Your task to perform on an android device: turn off translation in the chrome app Image 0: 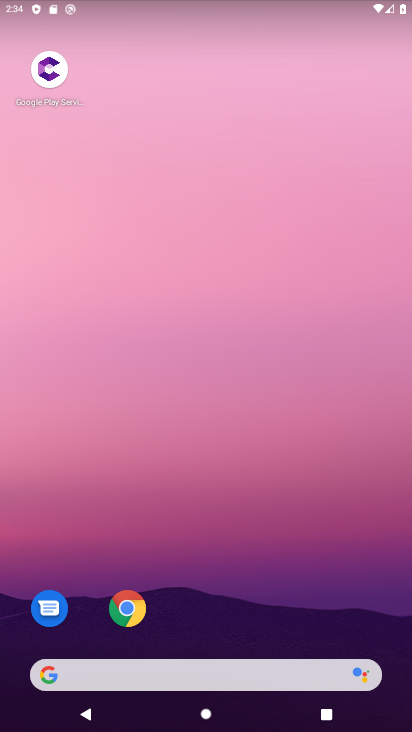
Step 0: drag from (357, 562) to (362, 127)
Your task to perform on an android device: turn off translation in the chrome app Image 1: 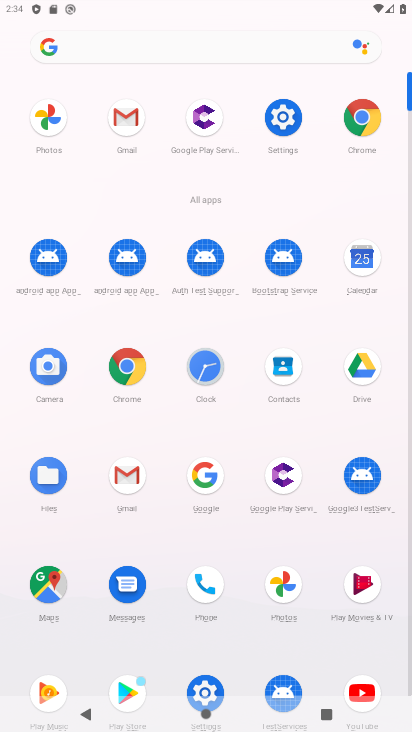
Step 1: click (366, 123)
Your task to perform on an android device: turn off translation in the chrome app Image 2: 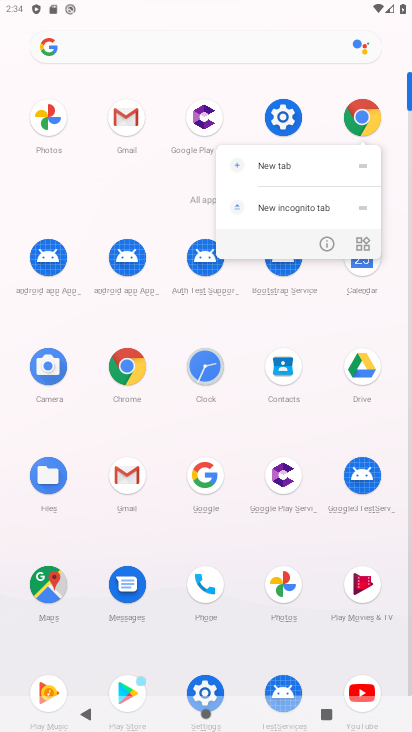
Step 2: click (378, 104)
Your task to perform on an android device: turn off translation in the chrome app Image 3: 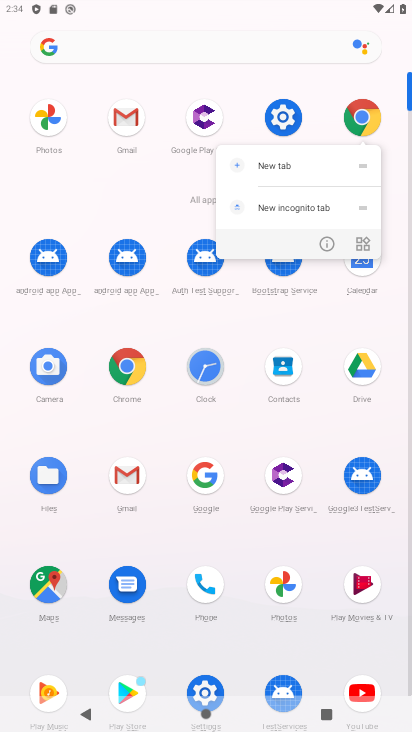
Step 3: click (96, 366)
Your task to perform on an android device: turn off translation in the chrome app Image 4: 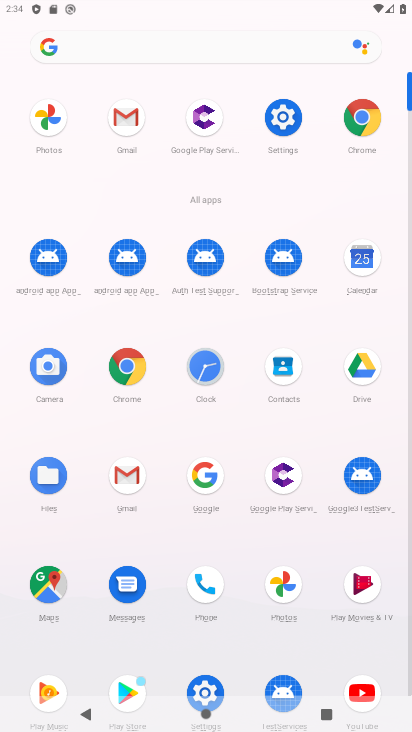
Step 4: click (139, 372)
Your task to perform on an android device: turn off translation in the chrome app Image 5: 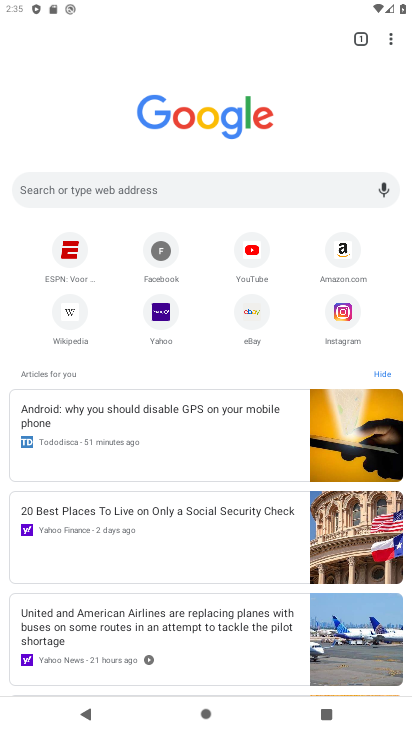
Step 5: click (390, 35)
Your task to perform on an android device: turn off translation in the chrome app Image 6: 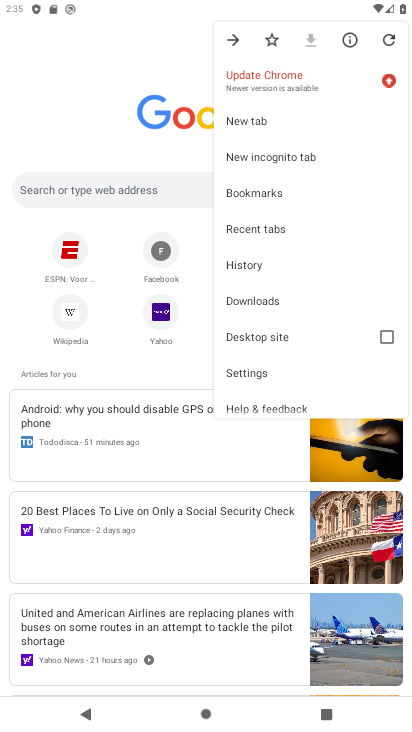
Step 6: click (255, 375)
Your task to perform on an android device: turn off translation in the chrome app Image 7: 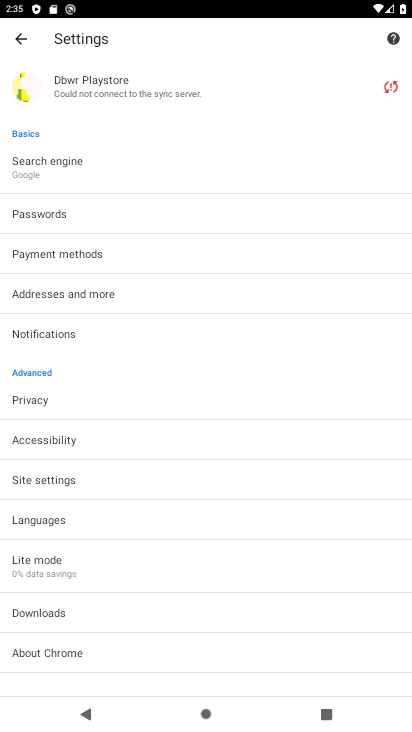
Step 7: drag from (241, 300) to (240, 575)
Your task to perform on an android device: turn off translation in the chrome app Image 8: 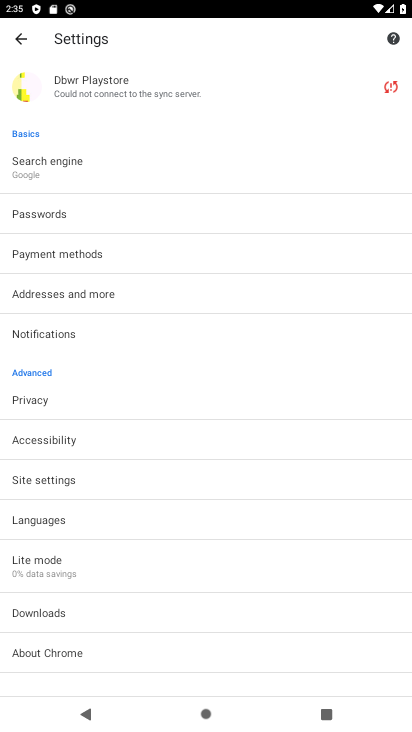
Step 8: click (221, 518)
Your task to perform on an android device: turn off translation in the chrome app Image 9: 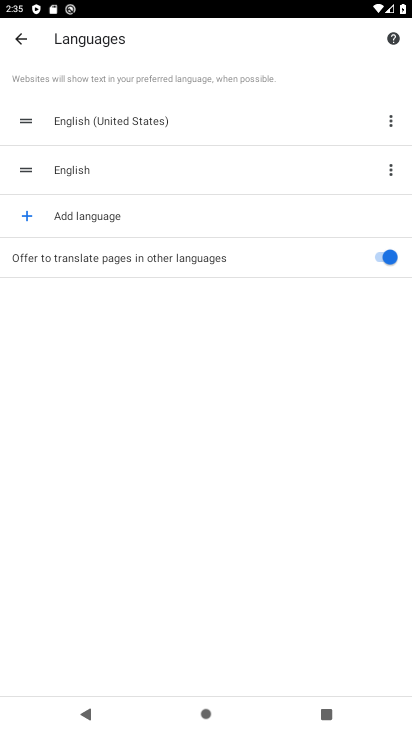
Step 9: click (388, 254)
Your task to perform on an android device: turn off translation in the chrome app Image 10: 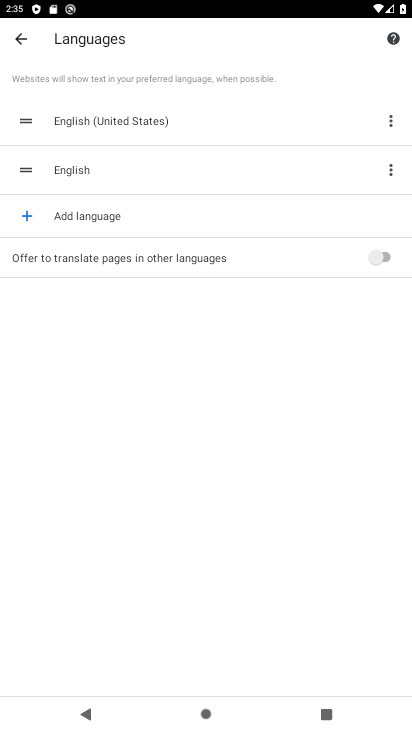
Step 10: task complete